Your task to perform on an android device: Open Reddit.com Image 0: 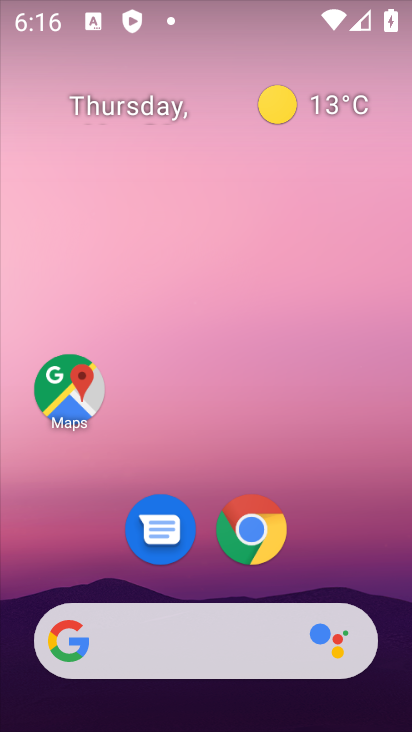
Step 0: drag from (329, 622) to (278, 4)
Your task to perform on an android device: Open Reddit.com Image 1: 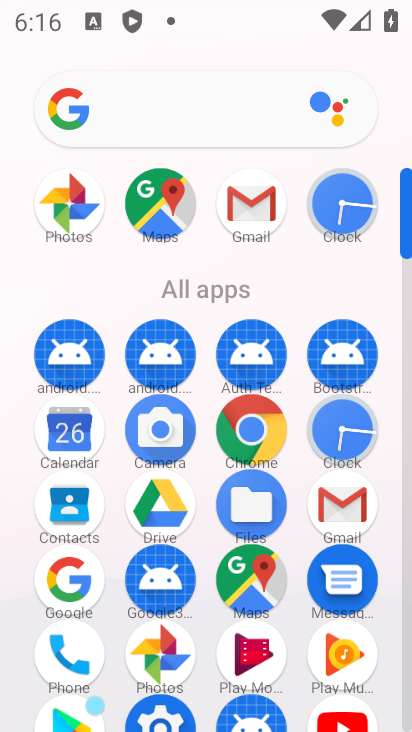
Step 1: click (273, 426)
Your task to perform on an android device: Open Reddit.com Image 2: 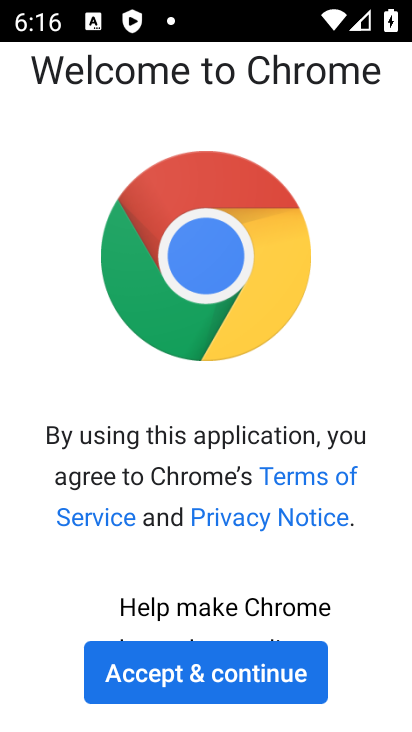
Step 2: click (217, 683)
Your task to perform on an android device: Open Reddit.com Image 3: 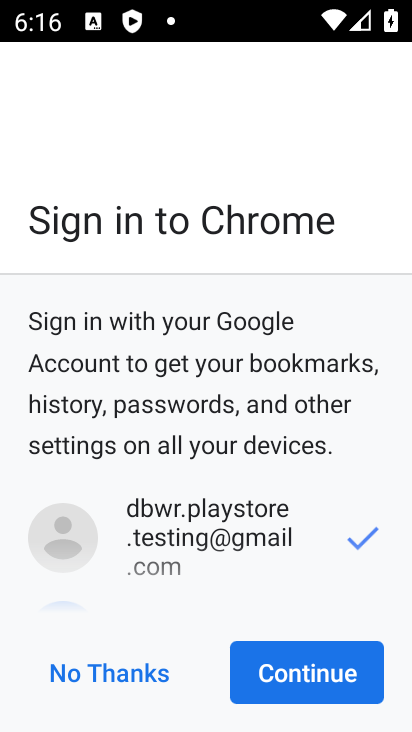
Step 3: click (115, 677)
Your task to perform on an android device: Open Reddit.com Image 4: 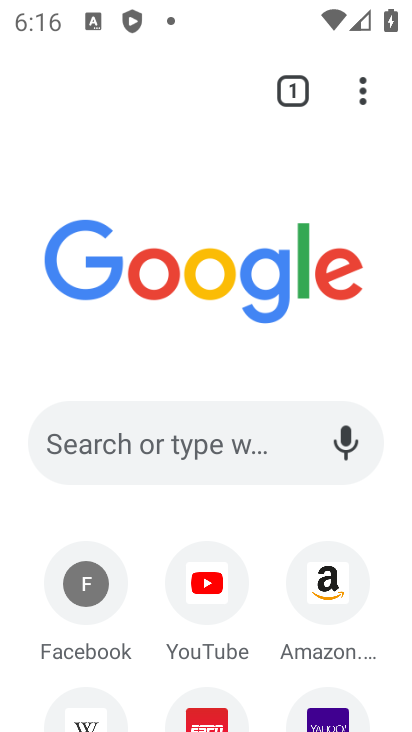
Step 4: drag from (271, 676) to (288, 308)
Your task to perform on an android device: Open Reddit.com Image 5: 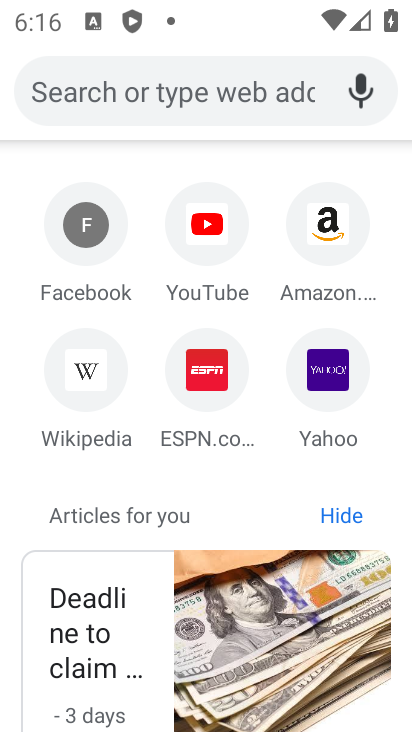
Step 5: click (266, 89)
Your task to perform on an android device: Open Reddit.com Image 6: 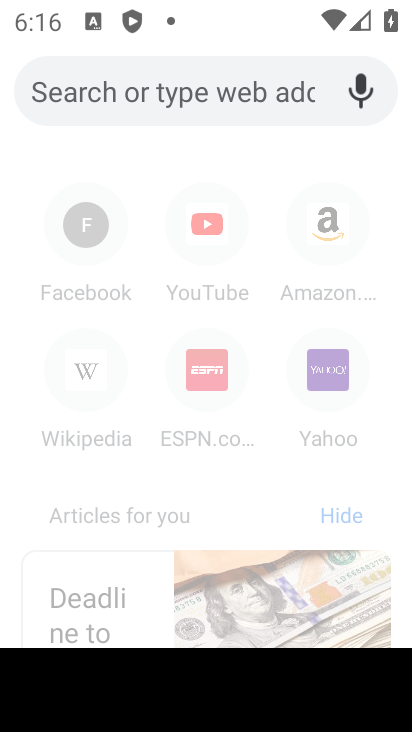
Step 6: type "reddit.com"
Your task to perform on an android device: Open Reddit.com Image 7: 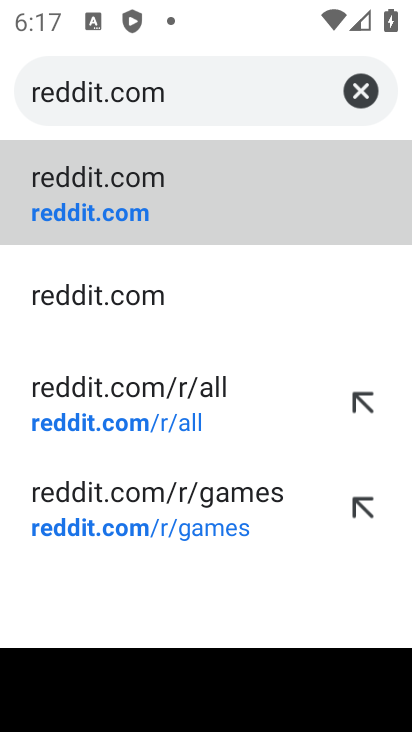
Step 7: click (199, 211)
Your task to perform on an android device: Open Reddit.com Image 8: 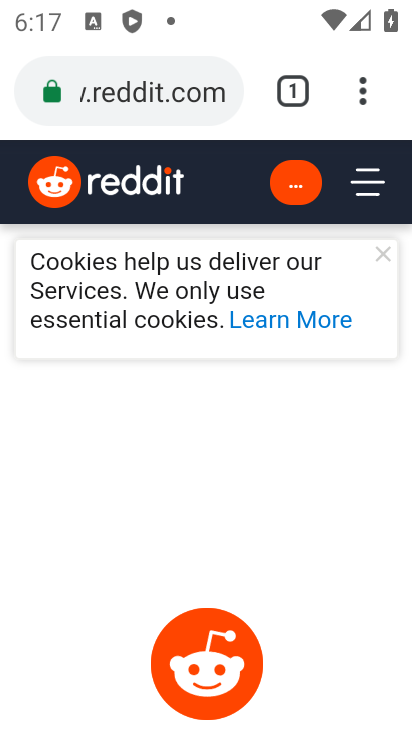
Step 8: task complete